Your task to perform on an android device: open the mobile data screen to see how much data has been used Image 0: 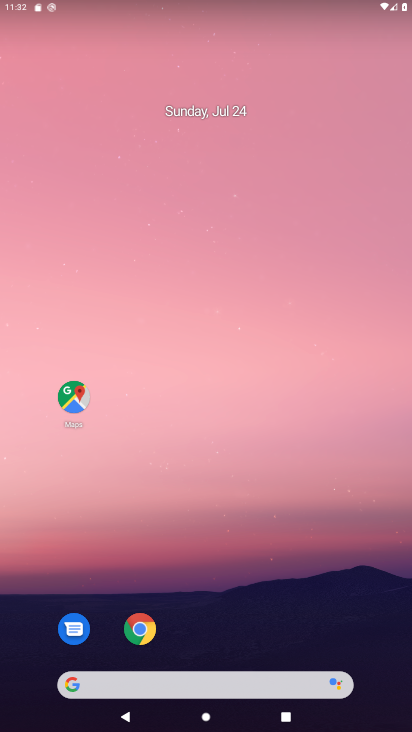
Step 0: drag from (200, 638) to (251, 52)
Your task to perform on an android device: open the mobile data screen to see how much data has been used Image 1: 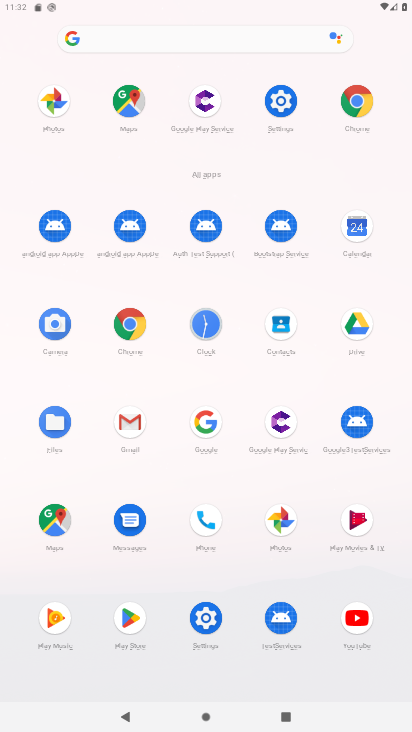
Step 1: click (292, 109)
Your task to perform on an android device: open the mobile data screen to see how much data has been used Image 2: 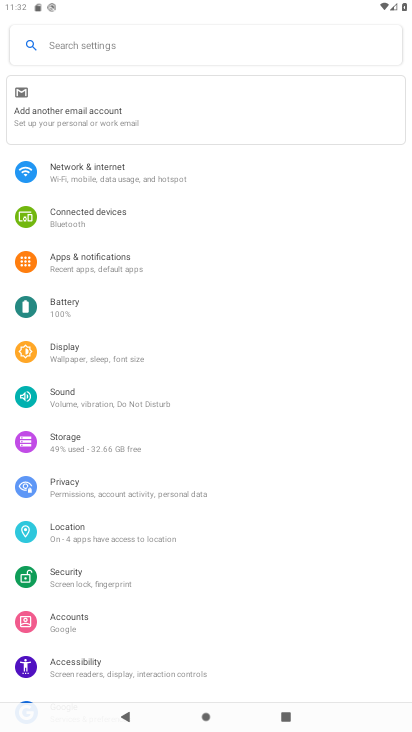
Step 2: click (106, 169)
Your task to perform on an android device: open the mobile data screen to see how much data has been used Image 3: 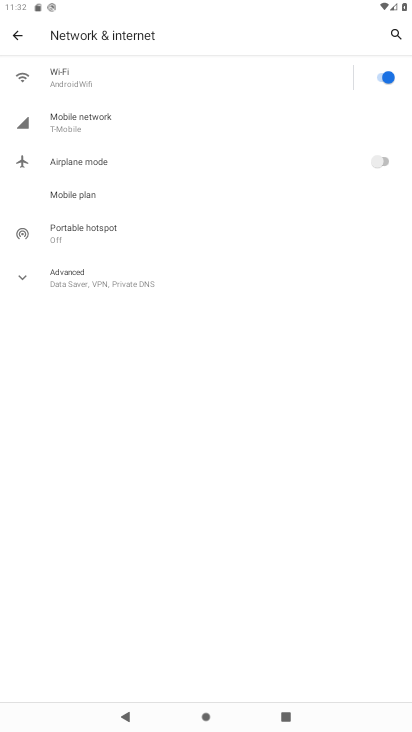
Step 3: click (92, 121)
Your task to perform on an android device: open the mobile data screen to see how much data has been used Image 4: 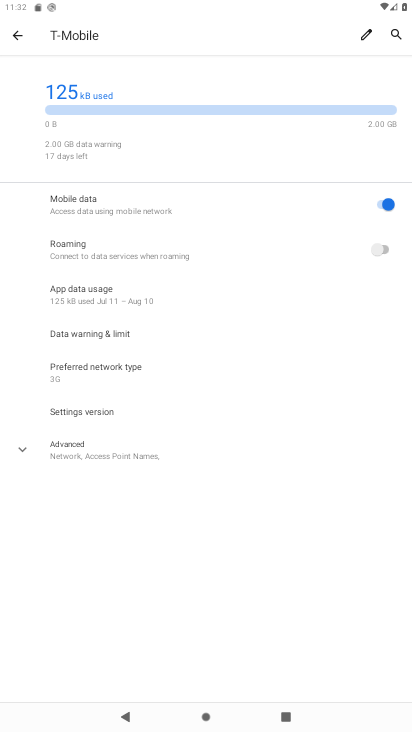
Step 4: click (131, 288)
Your task to perform on an android device: open the mobile data screen to see how much data has been used Image 5: 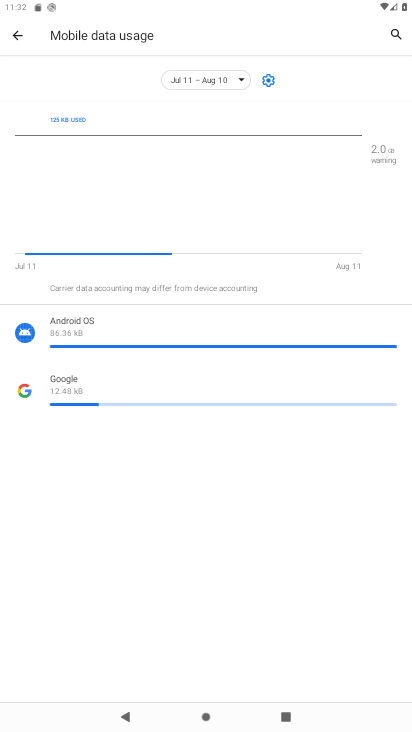
Step 5: task complete